Your task to perform on an android device: Add usb-c to usb-a to the cart on bestbuy.com, then select checkout. Image 0: 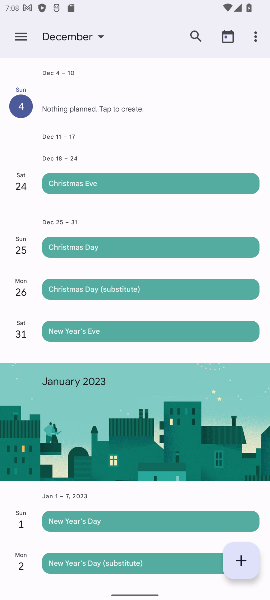
Step 0: press home button
Your task to perform on an android device: Add usb-c to usb-a to the cart on bestbuy.com, then select checkout. Image 1: 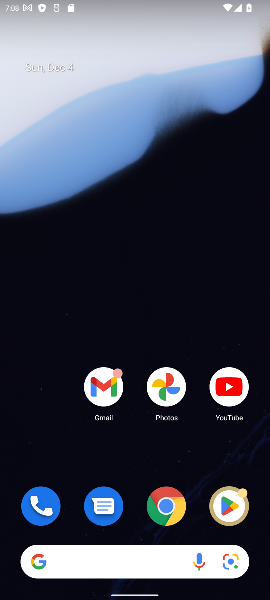
Step 1: click (161, 507)
Your task to perform on an android device: Add usb-c to usb-a to the cart on bestbuy.com, then select checkout. Image 2: 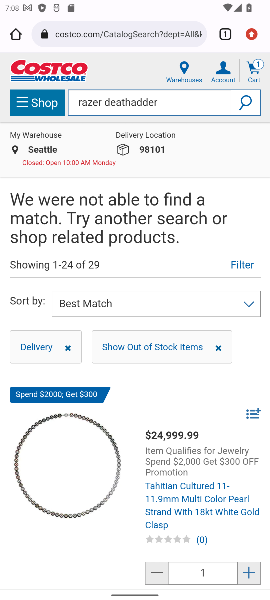
Step 2: click (83, 31)
Your task to perform on an android device: Add usb-c to usb-a to the cart on bestbuy.com, then select checkout. Image 3: 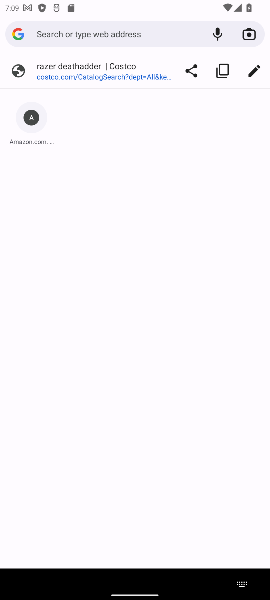
Step 3: type "bestbuy"
Your task to perform on an android device: Add usb-c to usb-a to the cart on bestbuy.com, then select checkout. Image 4: 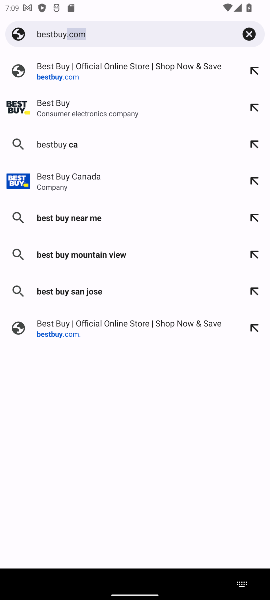
Step 4: click (65, 119)
Your task to perform on an android device: Add usb-c to usb-a to the cart on bestbuy.com, then select checkout. Image 5: 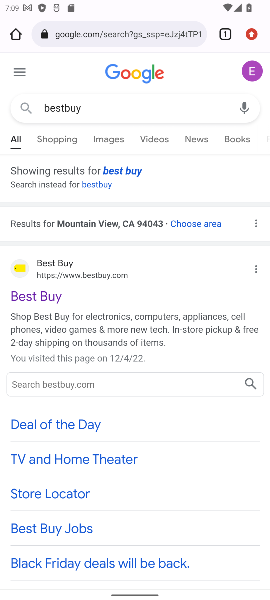
Step 5: click (31, 296)
Your task to perform on an android device: Add usb-c to usb-a to the cart on bestbuy.com, then select checkout. Image 6: 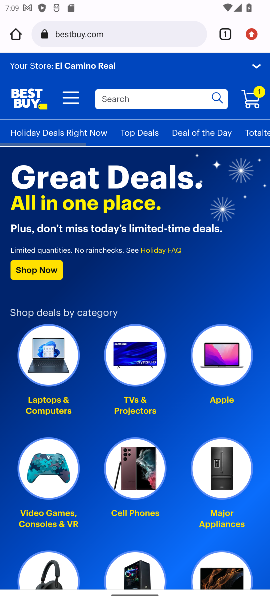
Step 6: click (145, 102)
Your task to perform on an android device: Add usb-c to usb-a to the cart on bestbuy.com, then select checkout. Image 7: 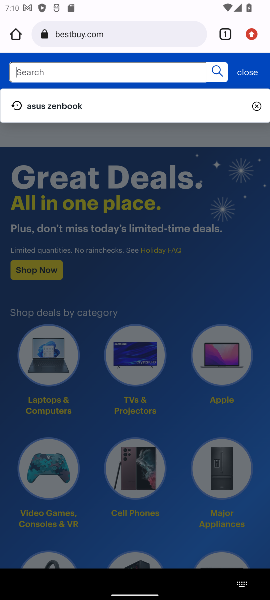
Step 7: type "usb-c to usb-a "
Your task to perform on an android device: Add usb-c to usb-a to the cart on bestbuy.com, then select checkout. Image 8: 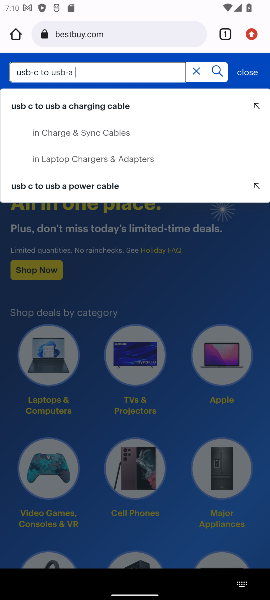
Step 8: click (212, 65)
Your task to perform on an android device: Add usb-c to usb-a to the cart on bestbuy.com, then select checkout. Image 9: 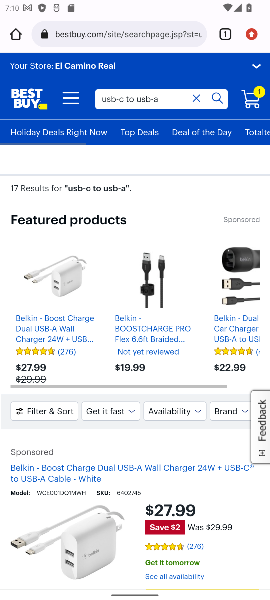
Step 9: drag from (151, 483) to (116, 181)
Your task to perform on an android device: Add usb-c to usb-a to the cart on bestbuy.com, then select checkout. Image 10: 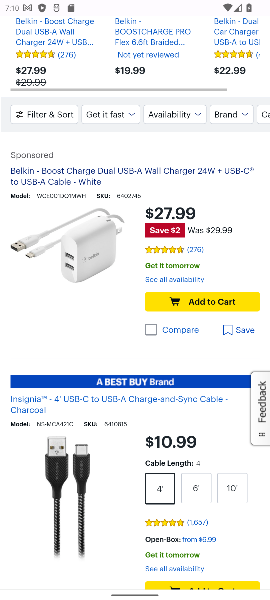
Step 10: click (205, 303)
Your task to perform on an android device: Add usb-c to usb-a to the cart on bestbuy.com, then select checkout. Image 11: 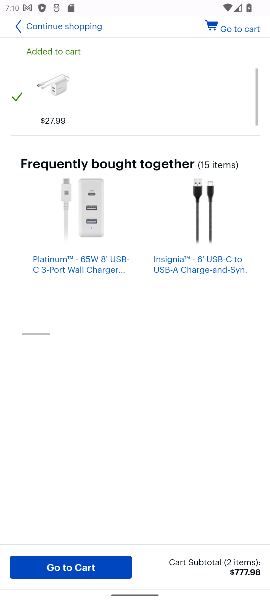
Step 11: click (31, 563)
Your task to perform on an android device: Add usb-c to usb-a to the cart on bestbuy.com, then select checkout. Image 12: 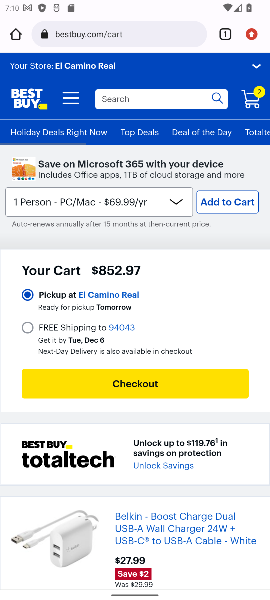
Step 12: click (139, 392)
Your task to perform on an android device: Add usb-c to usb-a to the cart on bestbuy.com, then select checkout. Image 13: 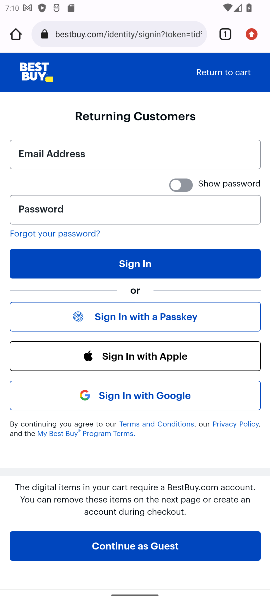
Step 13: task complete